Your task to perform on an android device: What is the recent news? Image 0: 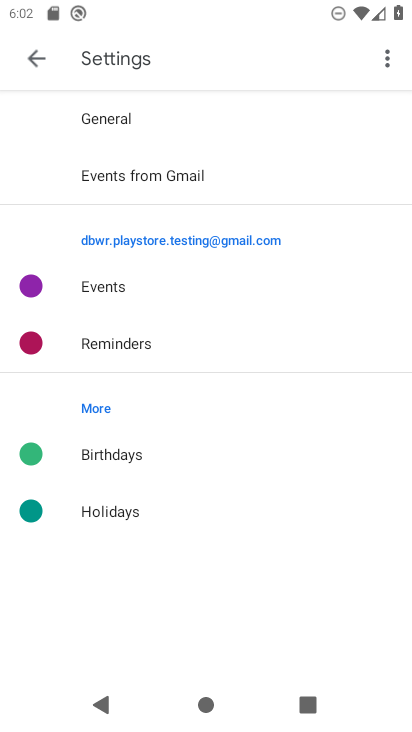
Step 0: press home button
Your task to perform on an android device: What is the recent news? Image 1: 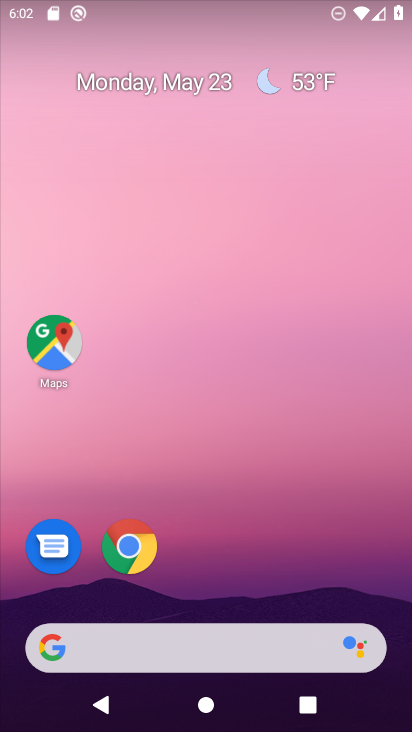
Step 1: drag from (235, 560) to (246, 145)
Your task to perform on an android device: What is the recent news? Image 2: 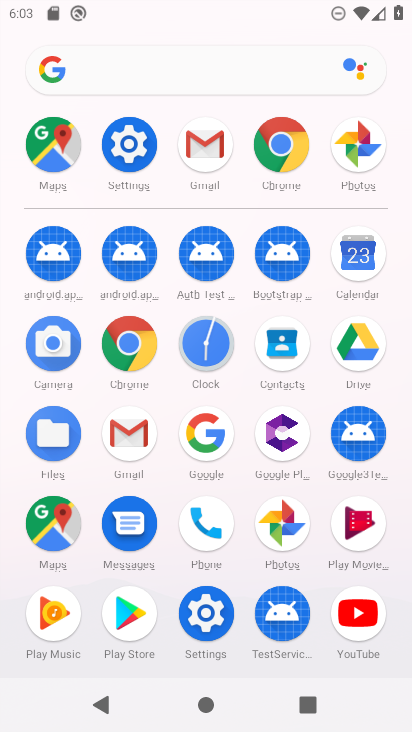
Step 2: click (204, 437)
Your task to perform on an android device: What is the recent news? Image 3: 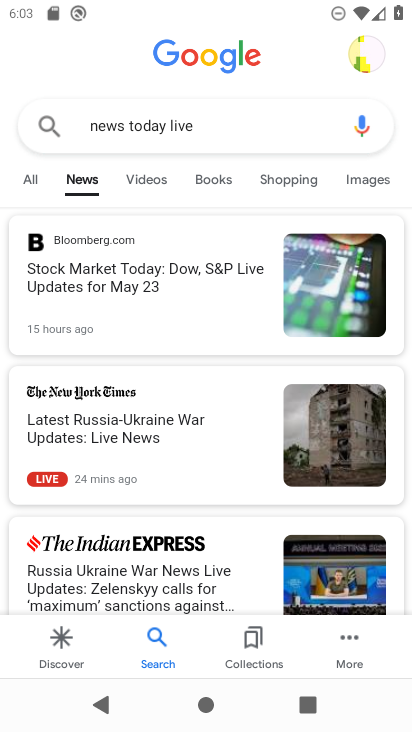
Step 3: click (216, 129)
Your task to perform on an android device: What is the recent news? Image 4: 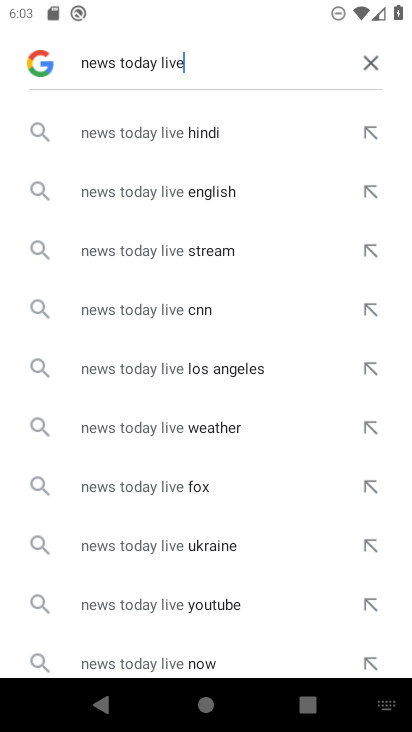
Step 4: click (246, 68)
Your task to perform on an android device: What is the recent news? Image 5: 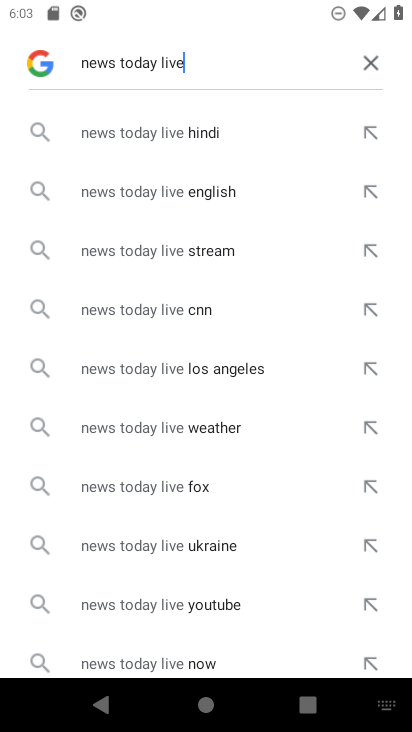
Step 5: click (214, 136)
Your task to perform on an android device: What is the recent news? Image 6: 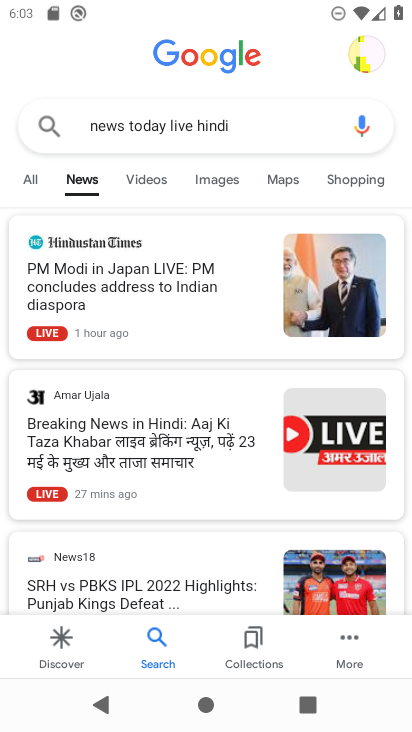
Step 6: task complete